Your task to perform on an android device: turn off priority inbox in the gmail app Image 0: 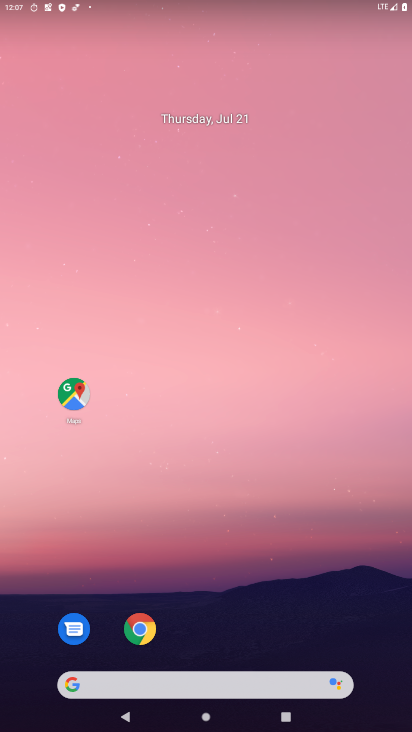
Step 0: drag from (243, 695) to (412, 373)
Your task to perform on an android device: turn off priority inbox in the gmail app Image 1: 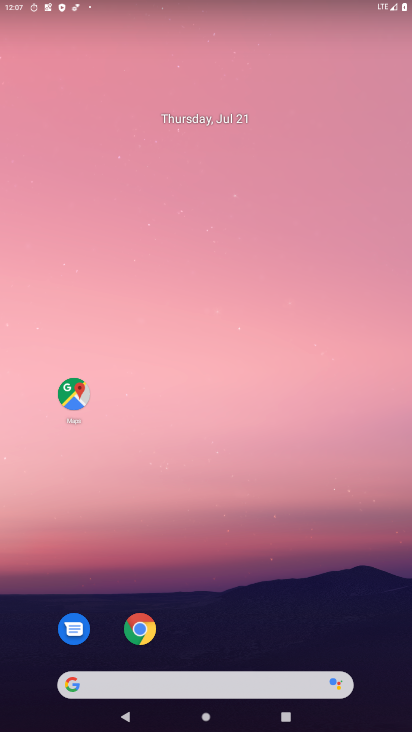
Step 1: drag from (211, 682) to (378, 382)
Your task to perform on an android device: turn off priority inbox in the gmail app Image 2: 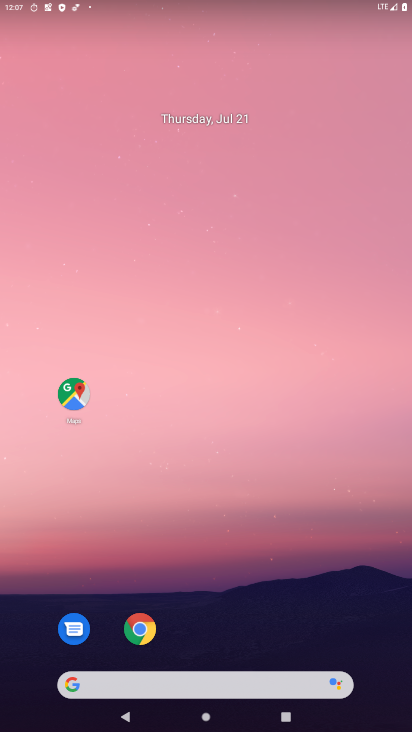
Step 2: click (124, 393)
Your task to perform on an android device: turn off priority inbox in the gmail app Image 3: 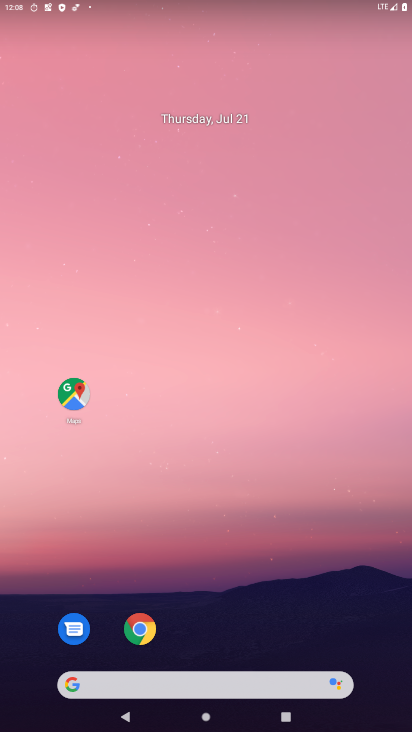
Step 3: drag from (166, 684) to (233, 29)
Your task to perform on an android device: turn off priority inbox in the gmail app Image 4: 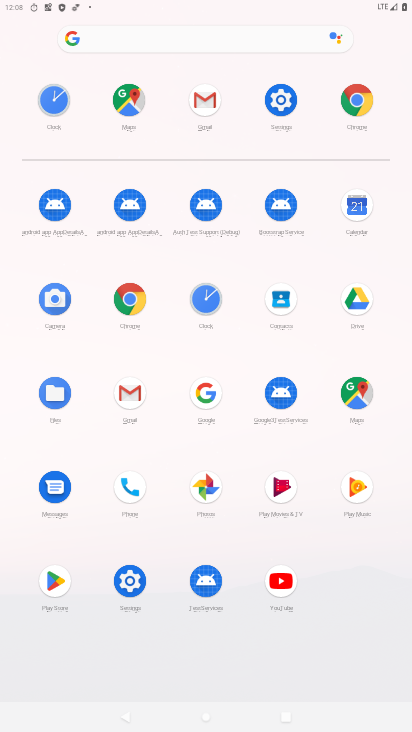
Step 4: click (124, 394)
Your task to perform on an android device: turn off priority inbox in the gmail app Image 5: 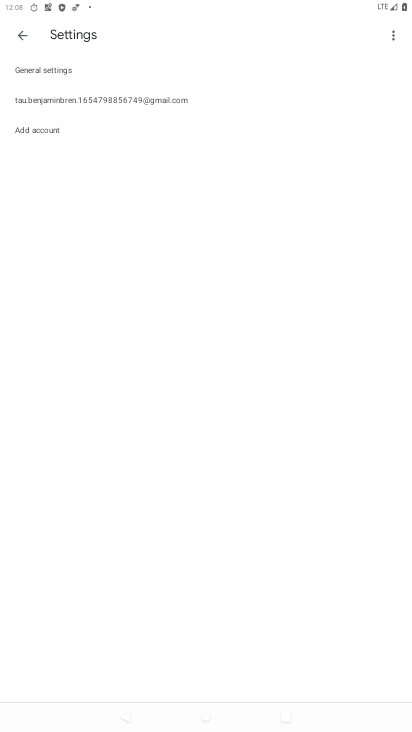
Step 5: press back button
Your task to perform on an android device: turn off priority inbox in the gmail app Image 6: 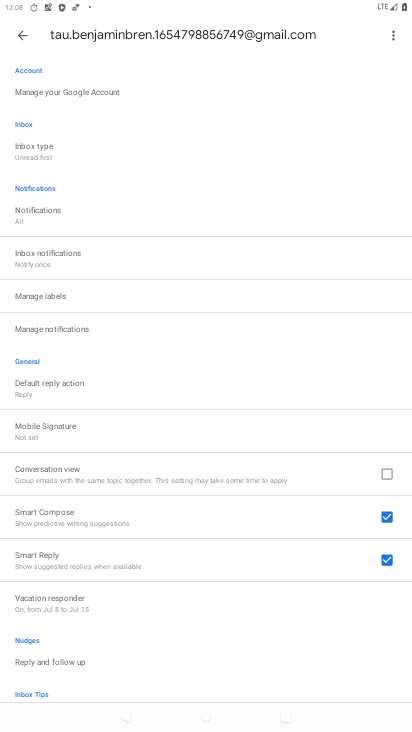
Step 6: press back button
Your task to perform on an android device: turn off priority inbox in the gmail app Image 7: 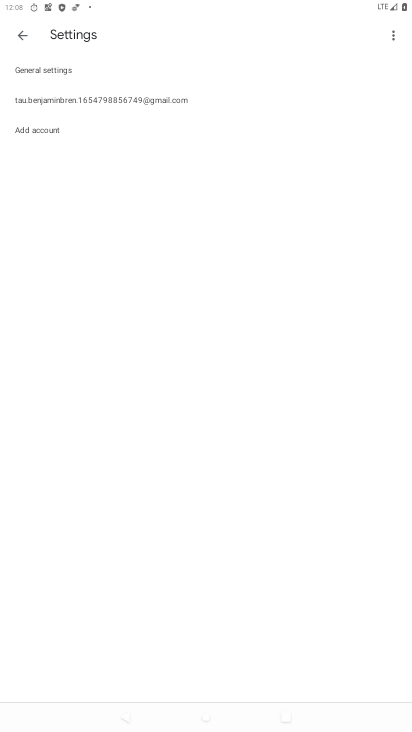
Step 7: click (120, 98)
Your task to perform on an android device: turn off priority inbox in the gmail app Image 8: 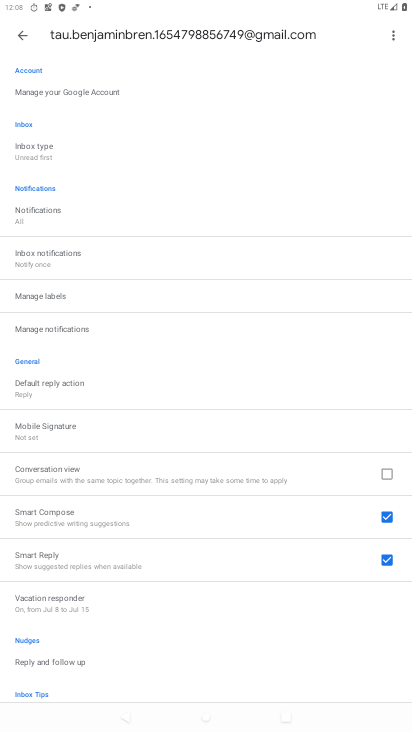
Step 8: click (46, 151)
Your task to perform on an android device: turn off priority inbox in the gmail app Image 9: 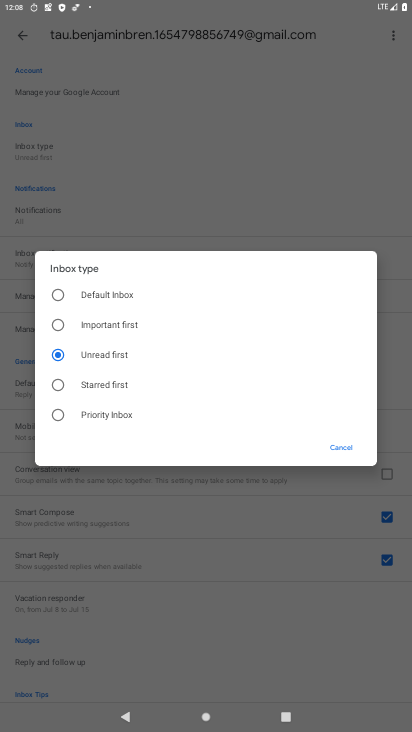
Step 9: click (91, 295)
Your task to perform on an android device: turn off priority inbox in the gmail app Image 10: 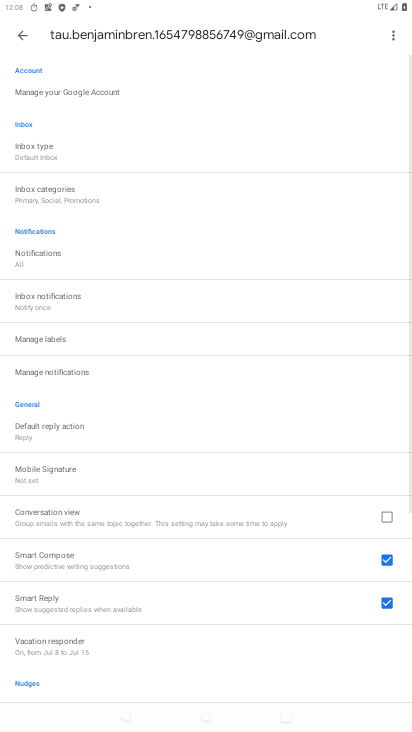
Step 10: task complete